Your task to perform on an android device: turn on showing notifications on the lock screen Image 0: 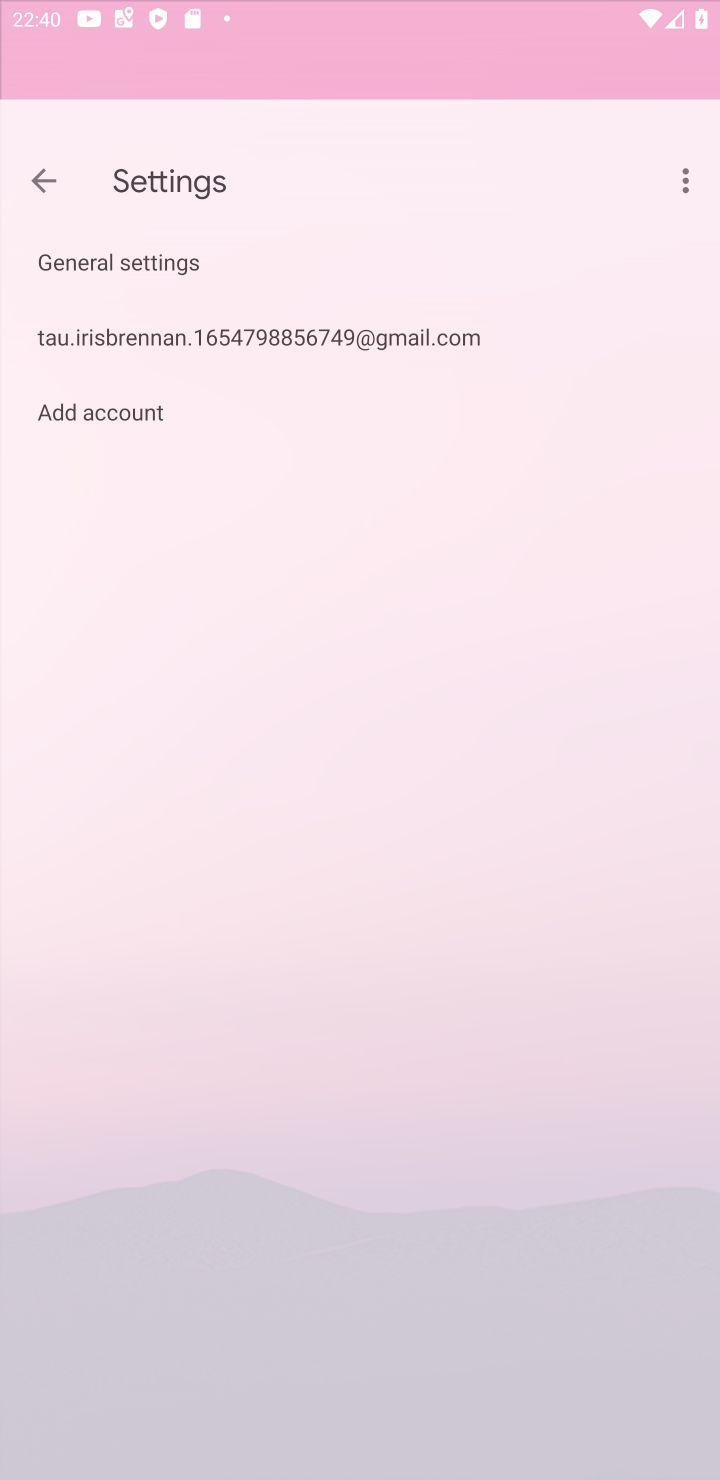
Step 0: press home button
Your task to perform on an android device: turn on showing notifications on the lock screen Image 1: 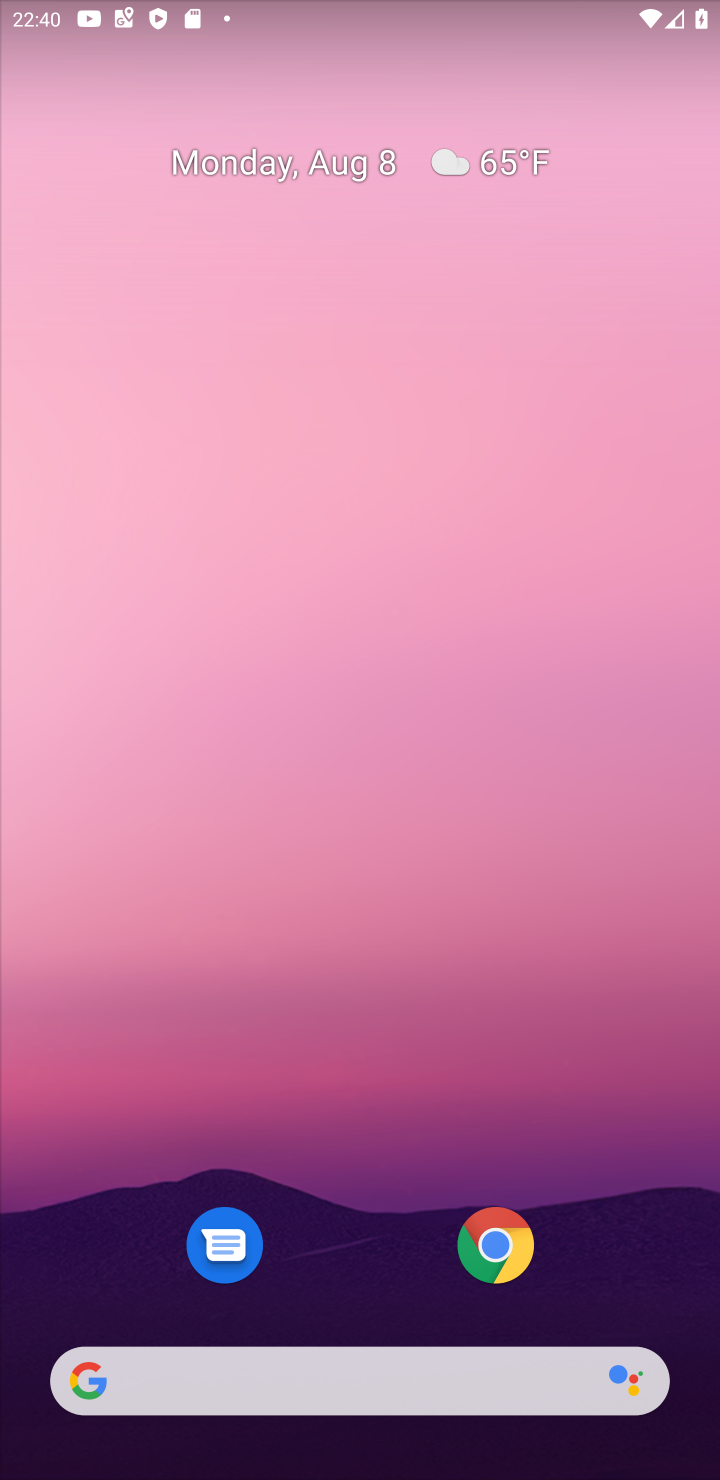
Step 1: drag from (360, 1111) to (144, 0)
Your task to perform on an android device: turn on showing notifications on the lock screen Image 2: 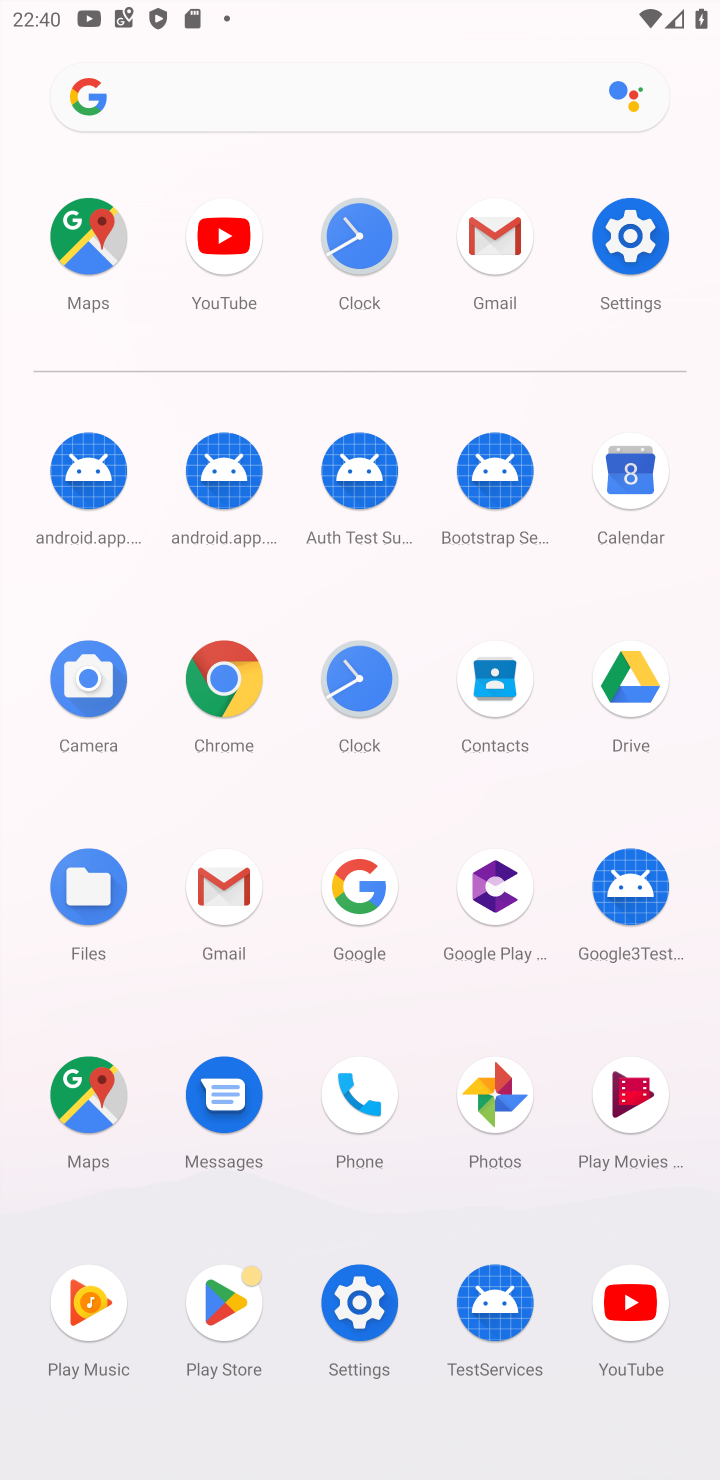
Step 2: click (634, 238)
Your task to perform on an android device: turn on showing notifications on the lock screen Image 3: 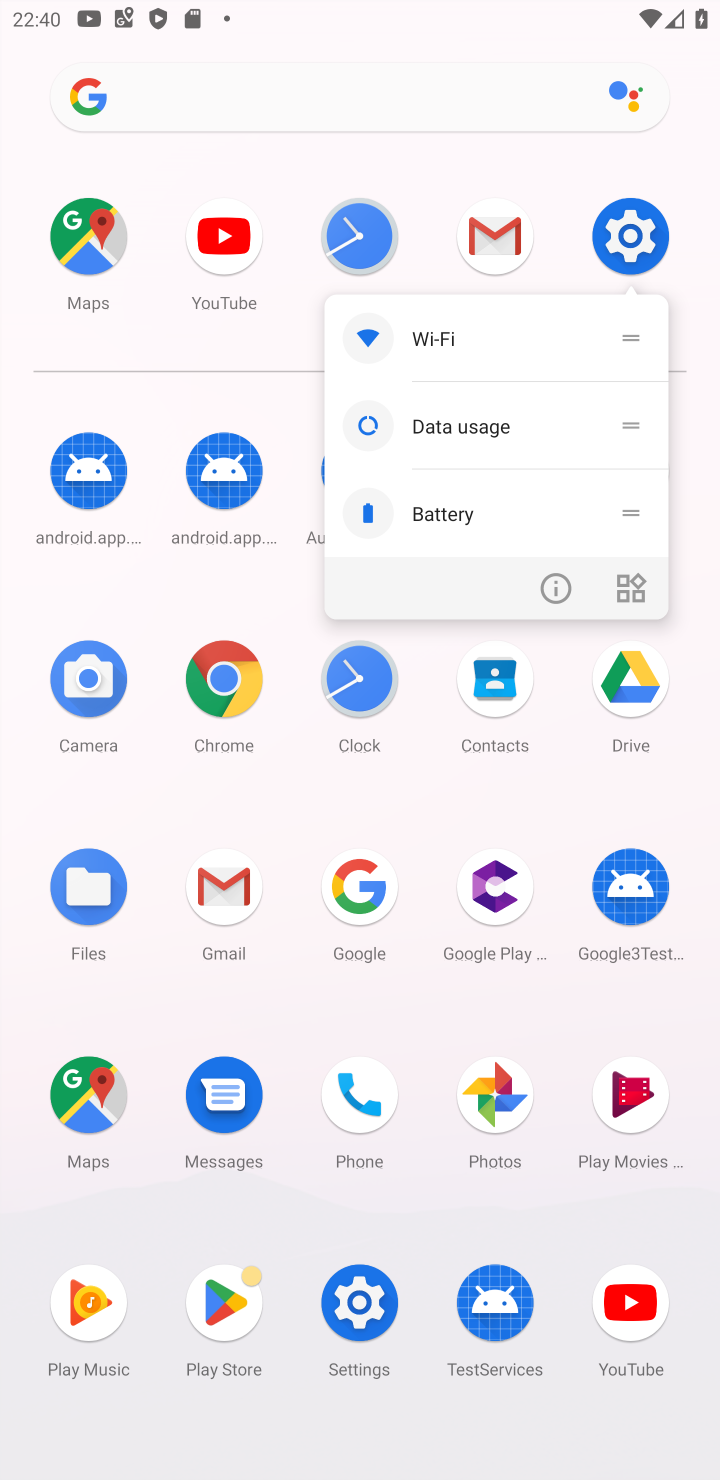
Step 3: click (629, 233)
Your task to perform on an android device: turn on showing notifications on the lock screen Image 4: 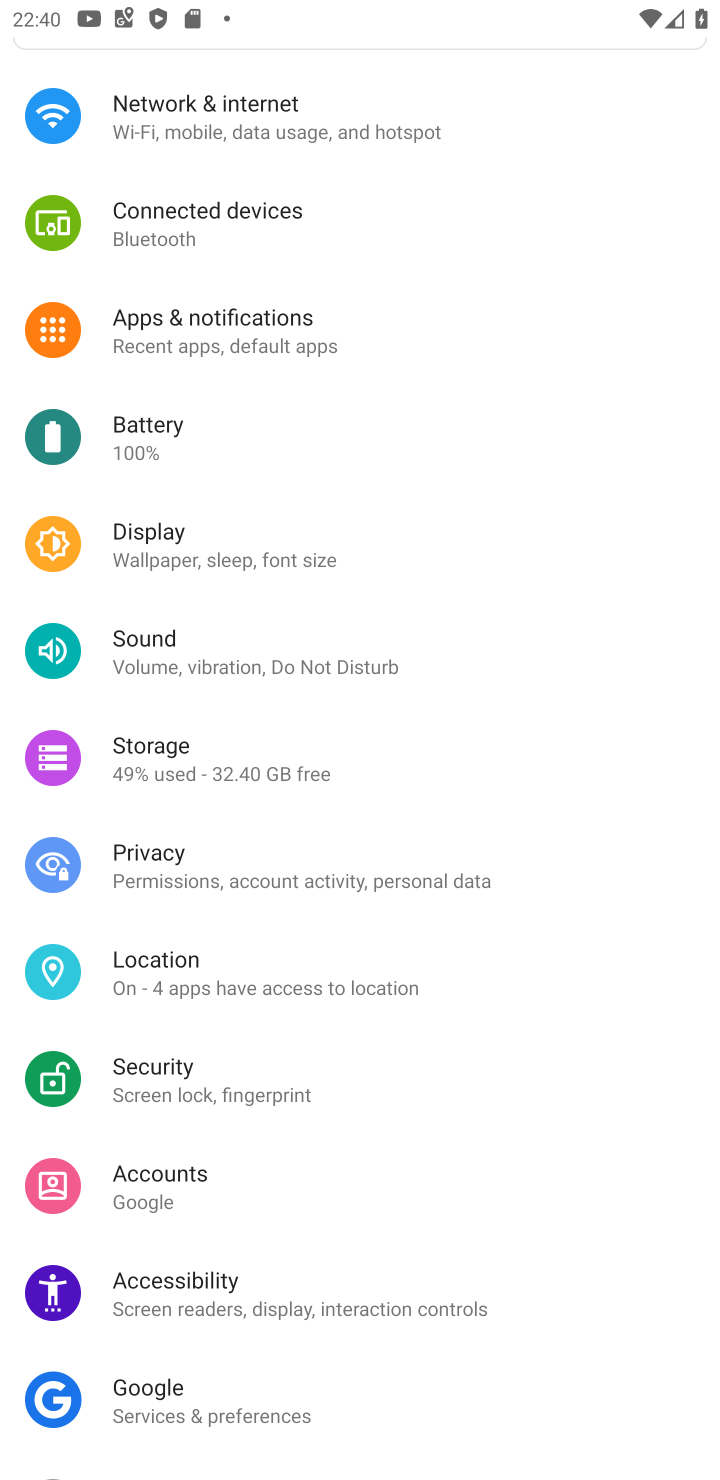
Step 4: click (217, 296)
Your task to perform on an android device: turn on showing notifications on the lock screen Image 5: 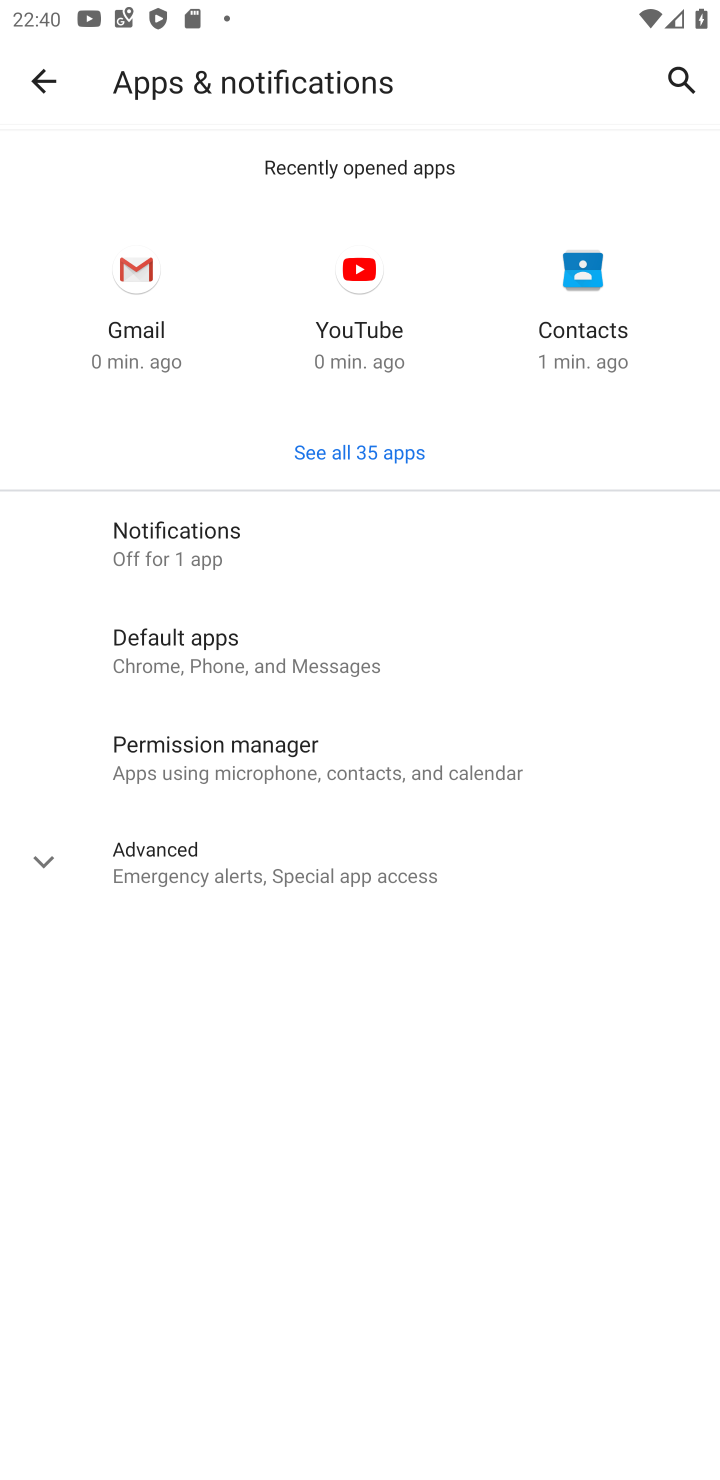
Step 5: click (185, 520)
Your task to perform on an android device: turn on showing notifications on the lock screen Image 6: 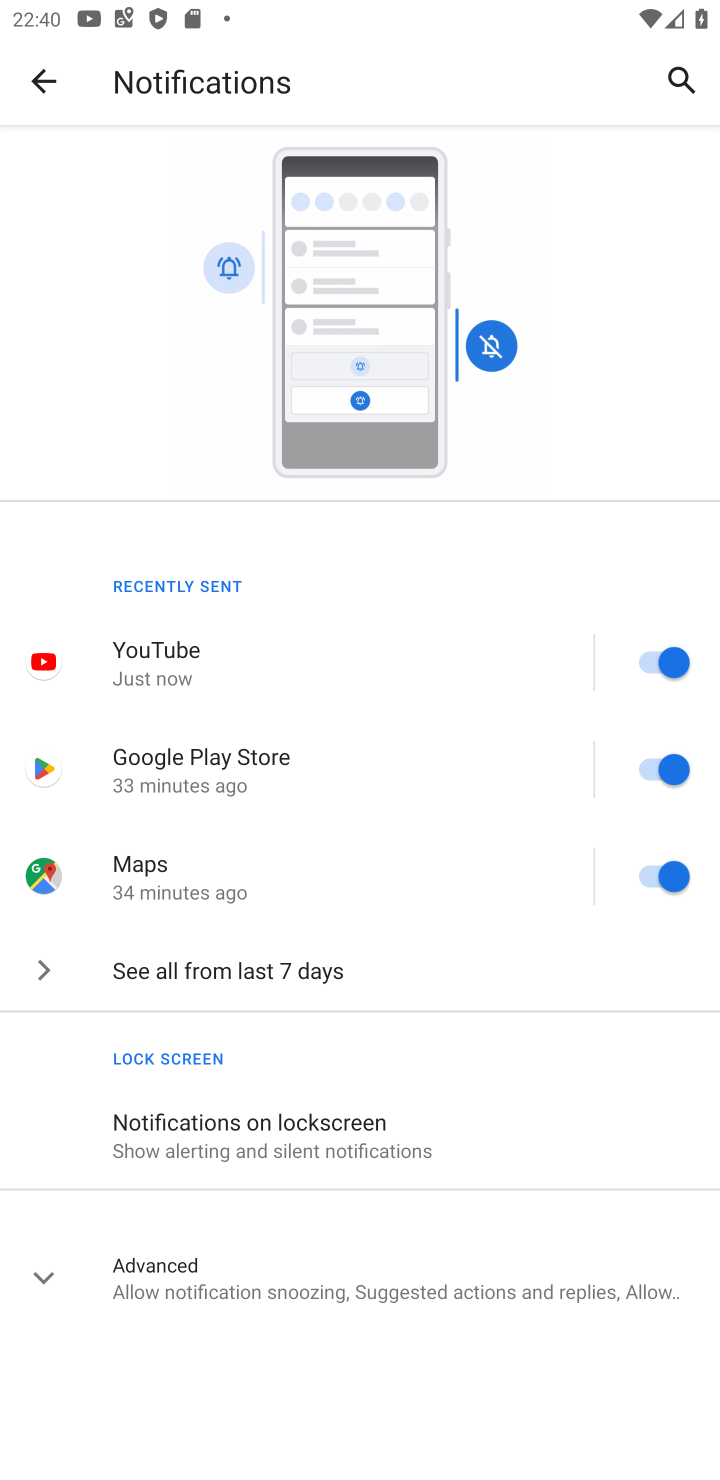
Step 6: click (338, 1121)
Your task to perform on an android device: turn on showing notifications on the lock screen Image 7: 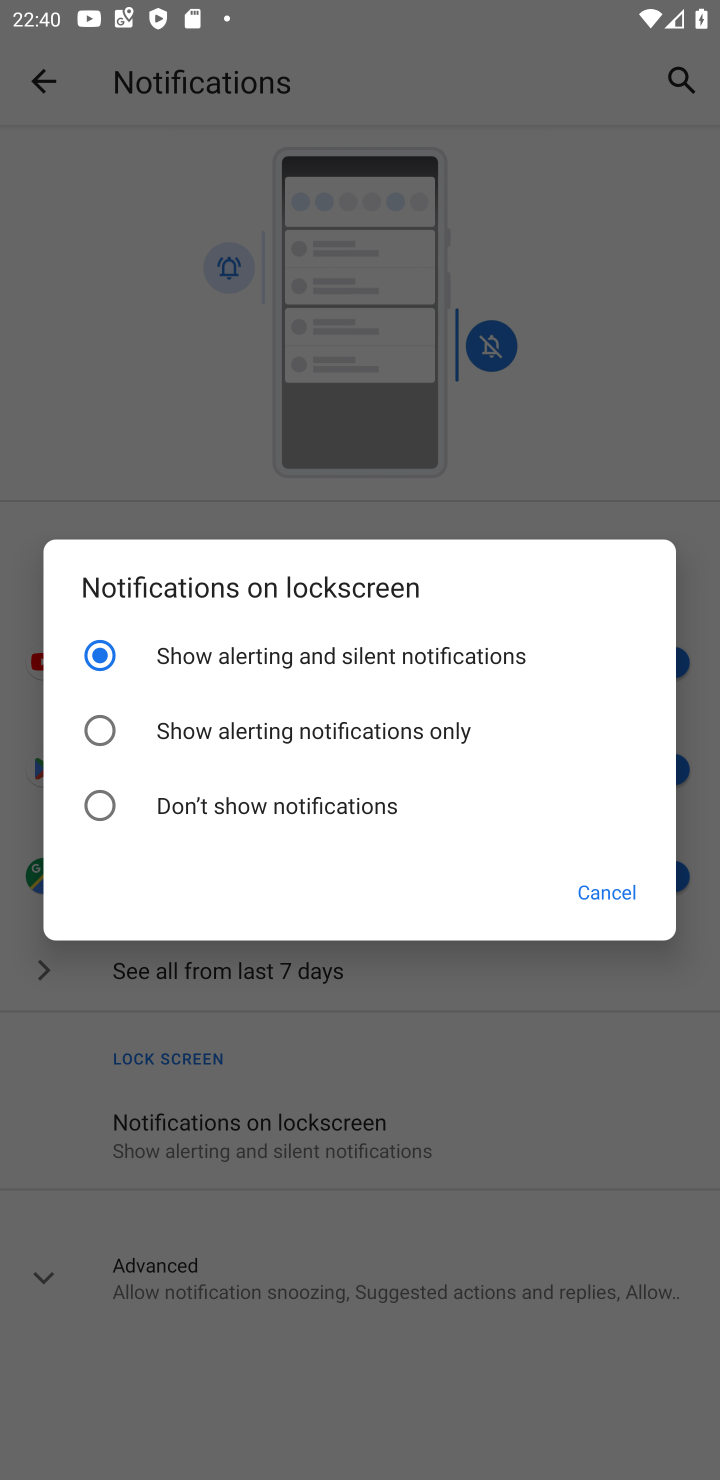
Step 7: task complete